Your task to perform on an android device: clear all cookies in the chrome app Image 0: 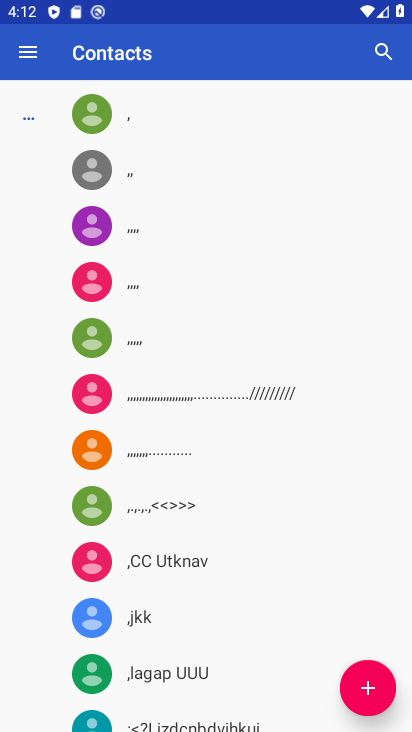
Step 0: press home button
Your task to perform on an android device: clear all cookies in the chrome app Image 1: 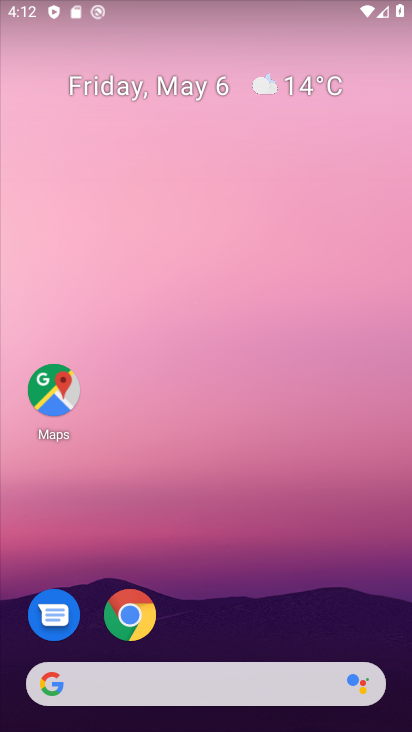
Step 1: click (145, 608)
Your task to perform on an android device: clear all cookies in the chrome app Image 2: 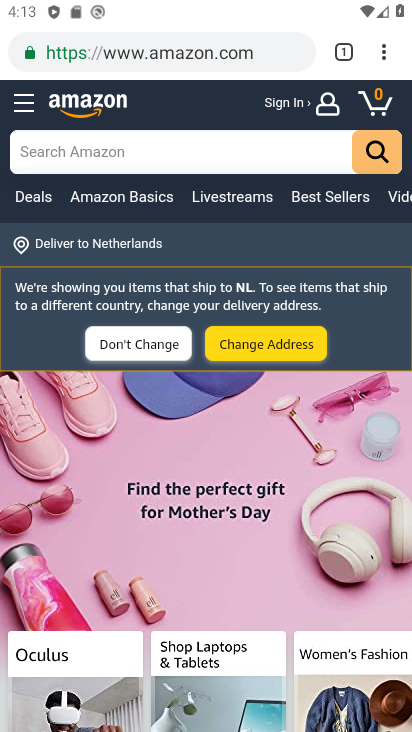
Step 2: click (379, 64)
Your task to perform on an android device: clear all cookies in the chrome app Image 3: 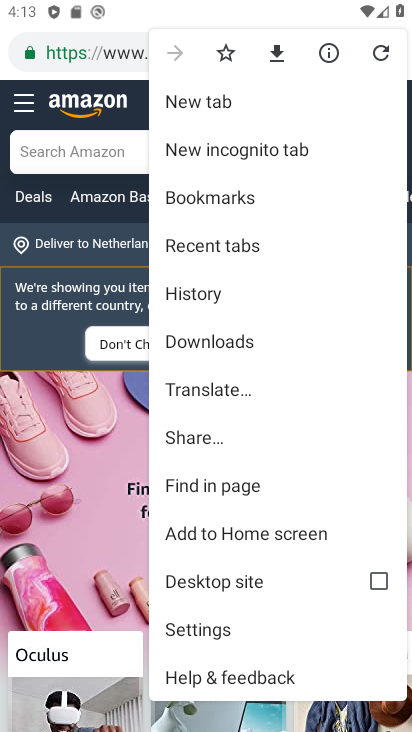
Step 3: click (214, 631)
Your task to perform on an android device: clear all cookies in the chrome app Image 4: 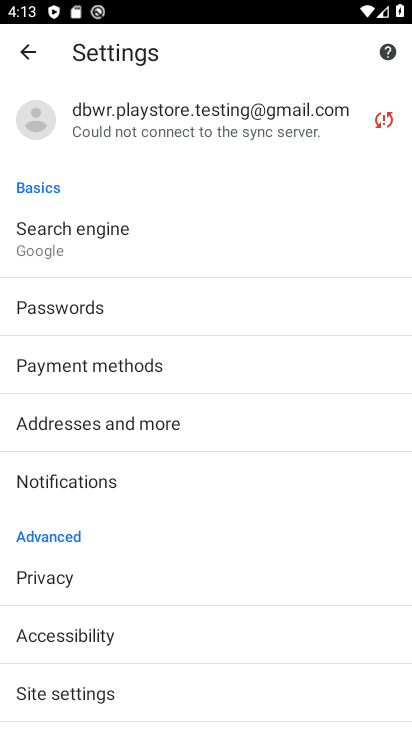
Step 4: click (154, 672)
Your task to perform on an android device: clear all cookies in the chrome app Image 5: 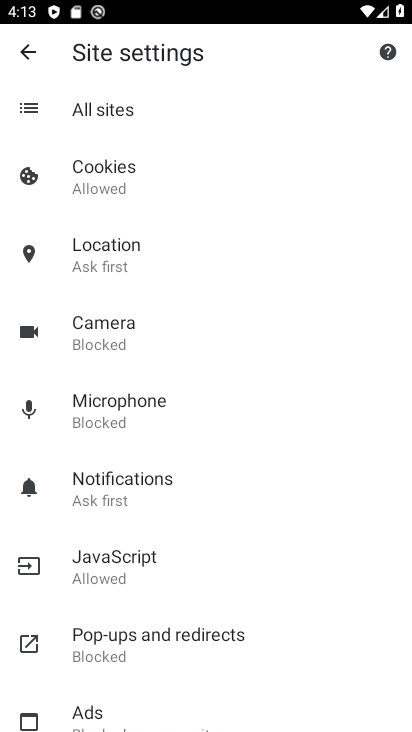
Step 5: click (137, 174)
Your task to perform on an android device: clear all cookies in the chrome app Image 6: 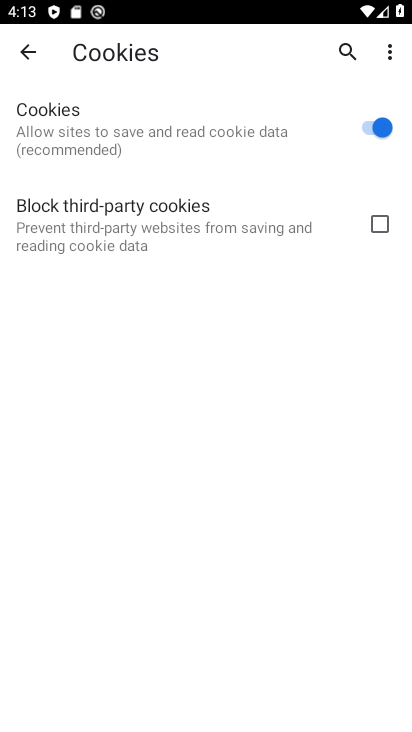
Step 6: task complete